Your task to perform on an android device: toggle javascript in the chrome app Image 0: 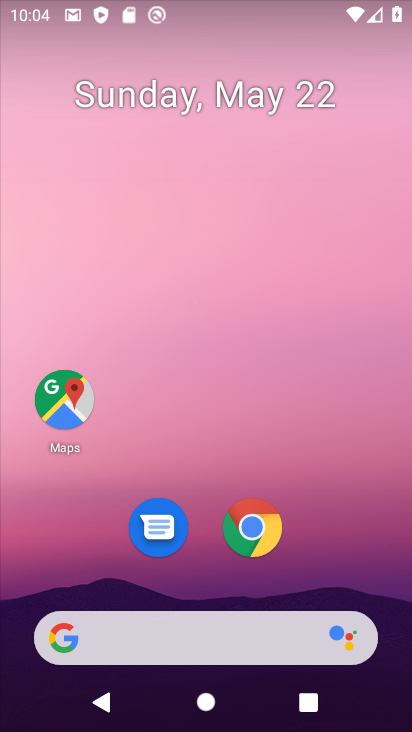
Step 0: drag from (346, 520) to (218, 2)
Your task to perform on an android device: toggle javascript in the chrome app Image 1: 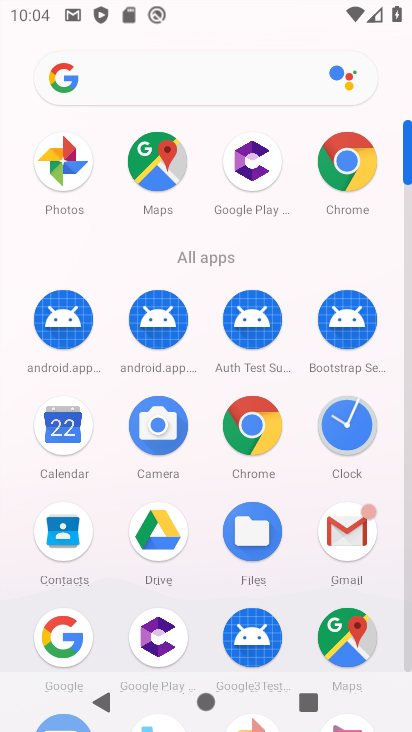
Step 1: drag from (10, 496) to (5, 248)
Your task to perform on an android device: toggle javascript in the chrome app Image 2: 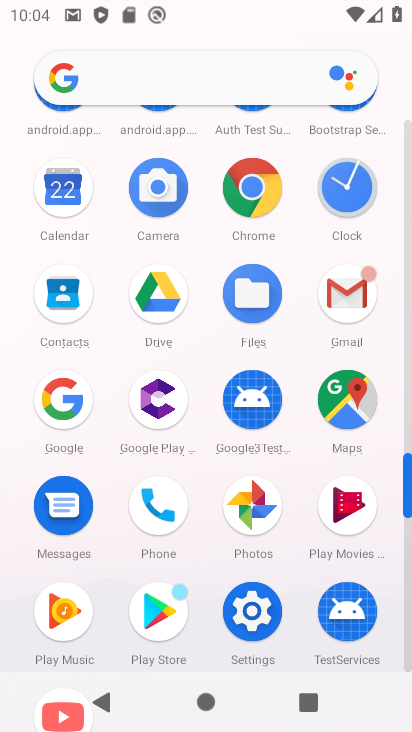
Step 2: click (248, 185)
Your task to perform on an android device: toggle javascript in the chrome app Image 3: 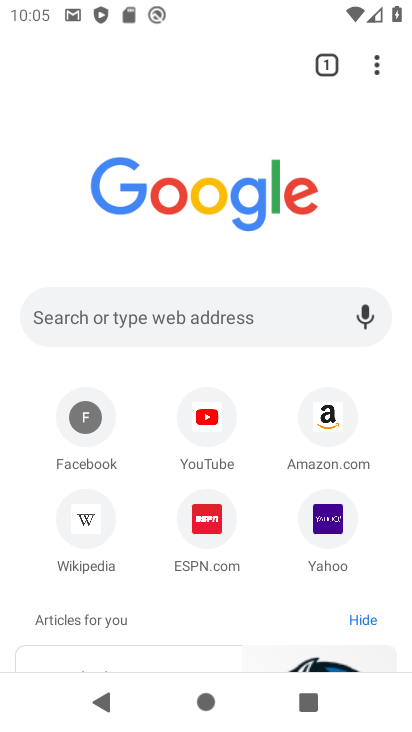
Step 3: drag from (379, 69) to (183, 539)
Your task to perform on an android device: toggle javascript in the chrome app Image 4: 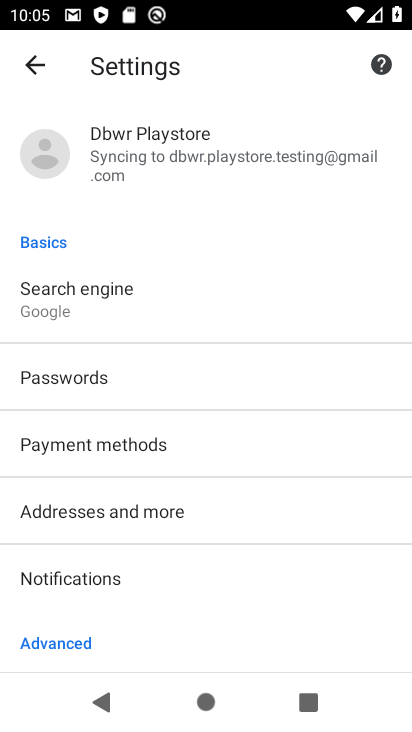
Step 4: drag from (223, 522) to (217, 140)
Your task to perform on an android device: toggle javascript in the chrome app Image 5: 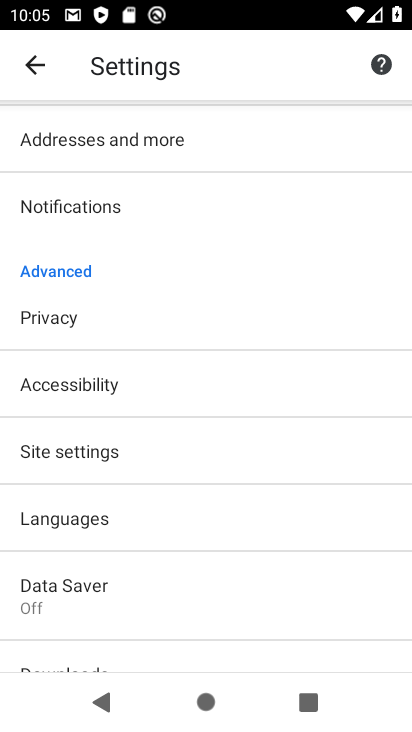
Step 5: click (119, 450)
Your task to perform on an android device: toggle javascript in the chrome app Image 6: 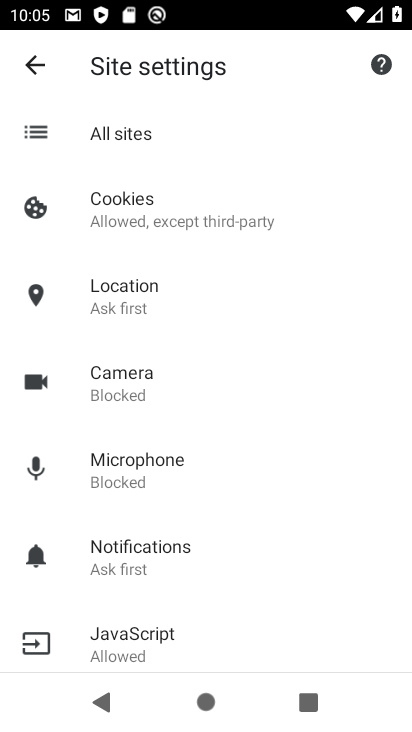
Step 6: drag from (247, 611) to (241, 225)
Your task to perform on an android device: toggle javascript in the chrome app Image 7: 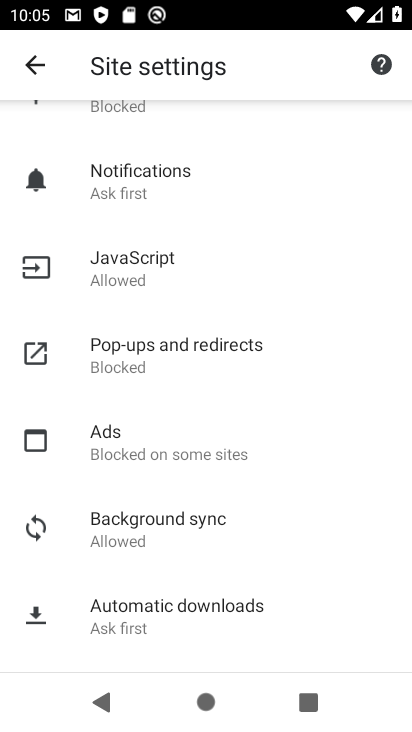
Step 7: click (165, 270)
Your task to perform on an android device: toggle javascript in the chrome app Image 8: 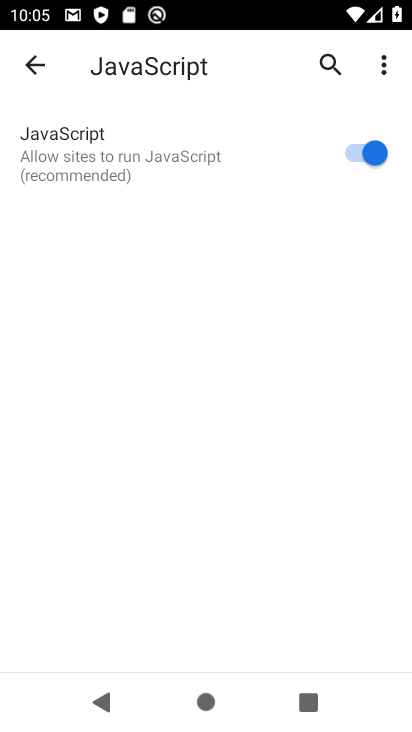
Step 8: click (373, 146)
Your task to perform on an android device: toggle javascript in the chrome app Image 9: 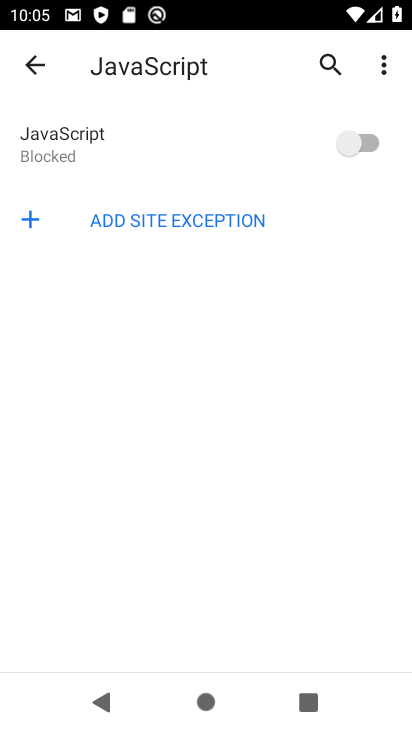
Step 9: task complete